Your task to perform on an android device: change the upload size in google photos Image 0: 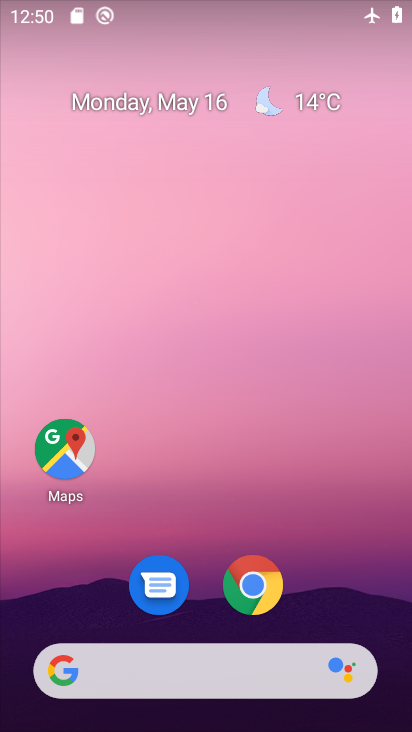
Step 0: drag from (308, 603) to (235, 33)
Your task to perform on an android device: change the upload size in google photos Image 1: 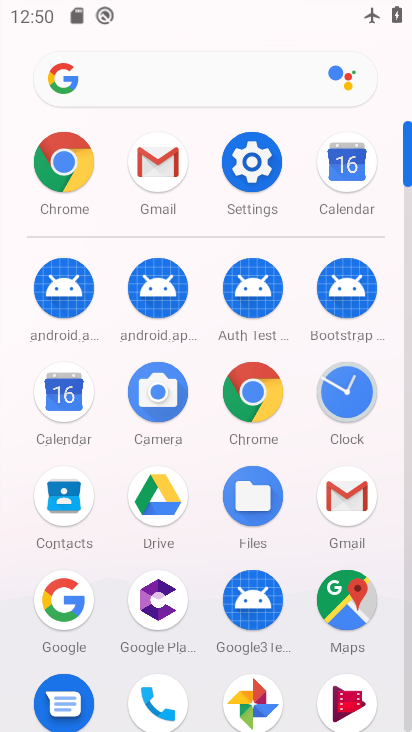
Step 1: click (256, 695)
Your task to perform on an android device: change the upload size in google photos Image 2: 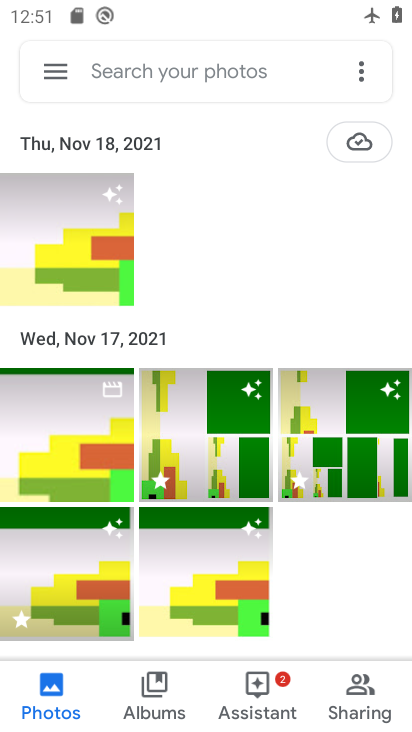
Step 2: click (56, 72)
Your task to perform on an android device: change the upload size in google photos Image 3: 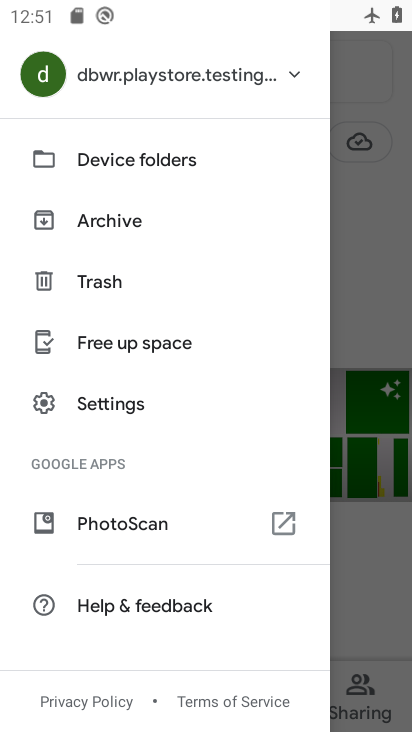
Step 3: click (123, 395)
Your task to perform on an android device: change the upload size in google photos Image 4: 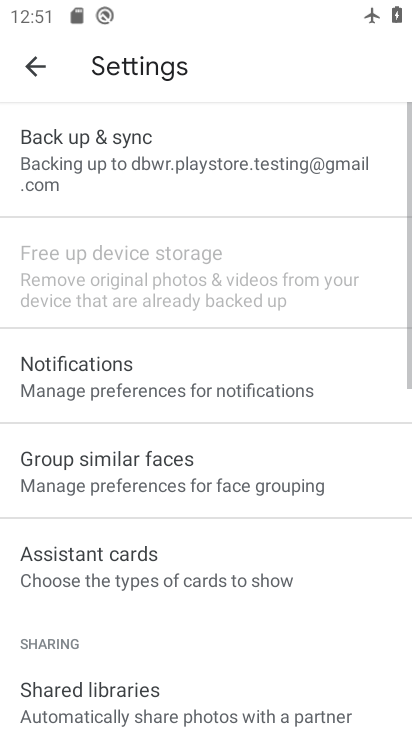
Step 4: click (135, 147)
Your task to perform on an android device: change the upload size in google photos Image 5: 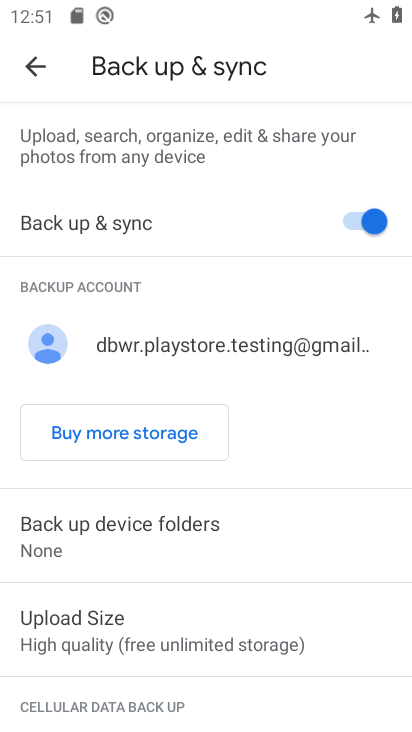
Step 5: click (217, 622)
Your task to perform on an android device: change the upload size in google photos Image 6: 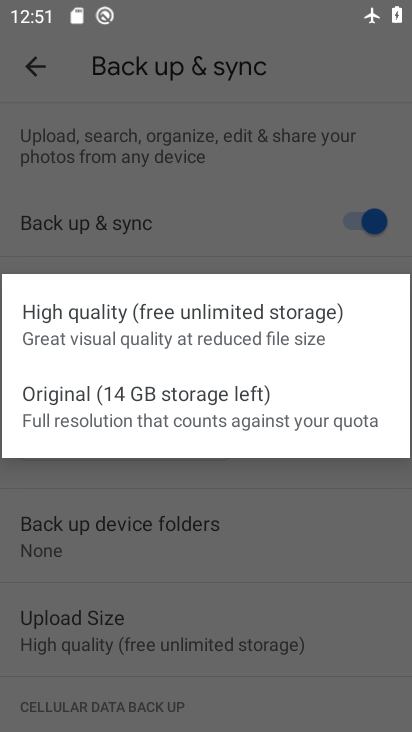
Step 6: click (170, 405)
Your task to perform on an android device: change the upload size in google photos Image 7: 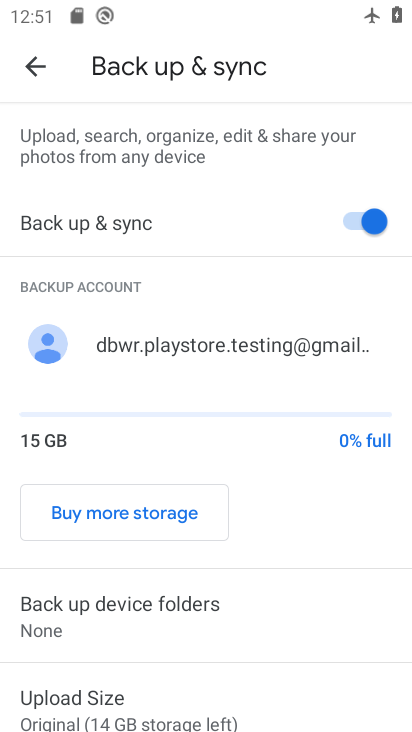
Step 7: task complete